Your task to perform on an android device: Open CNN.com Image 0: 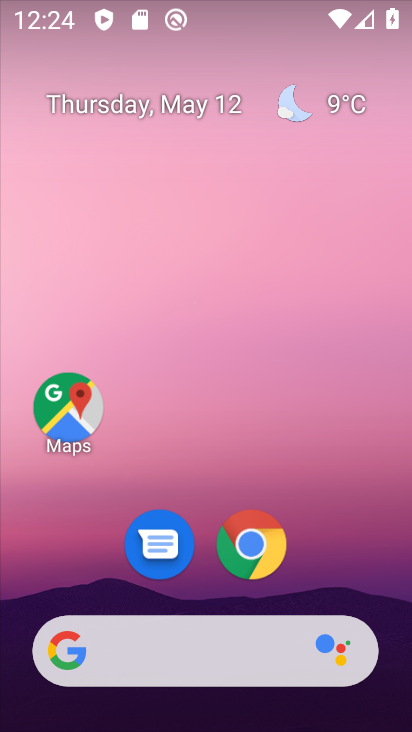
Step 0: click (255, 545)
Your task to perform on an android device: Open CNN.com Image 1: 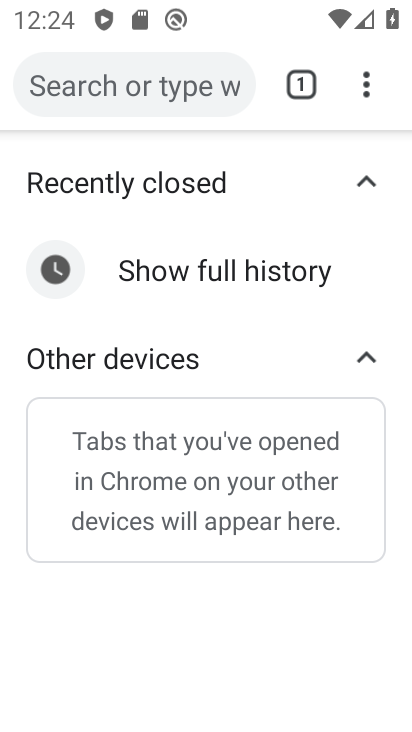
Step 1: click (366, 93)
Your task to perform on an android device: Open CNN.com Image 2: 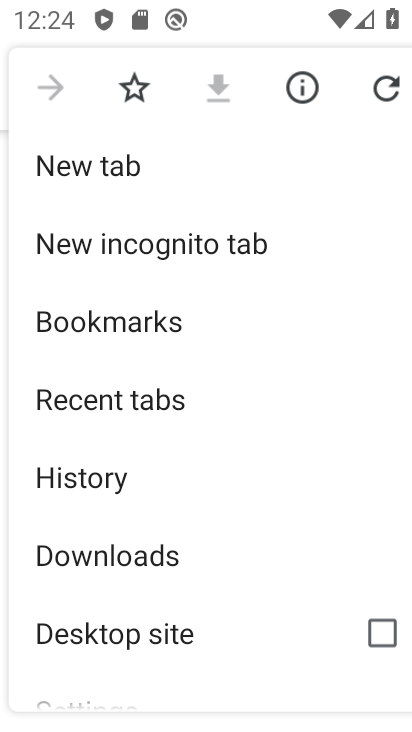
Step 2: click (70, 164)
Your task to perform on an android device: Open CNN.com Image 3: 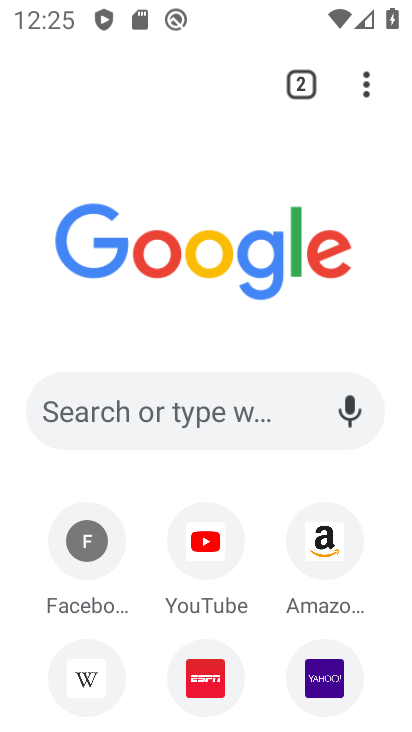
Step 3: click (192, 411)
Your task to perform on an android device: Open CNN.com Image 4: 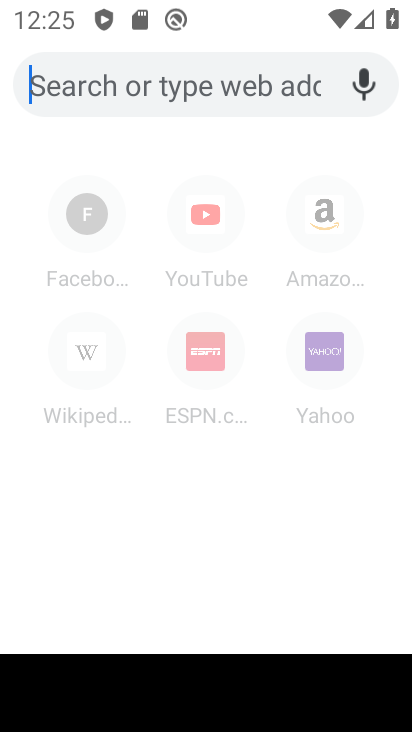
Step 4: type "CNN.com"
Your task to perform on an android device: Open CNN.com Image 5: 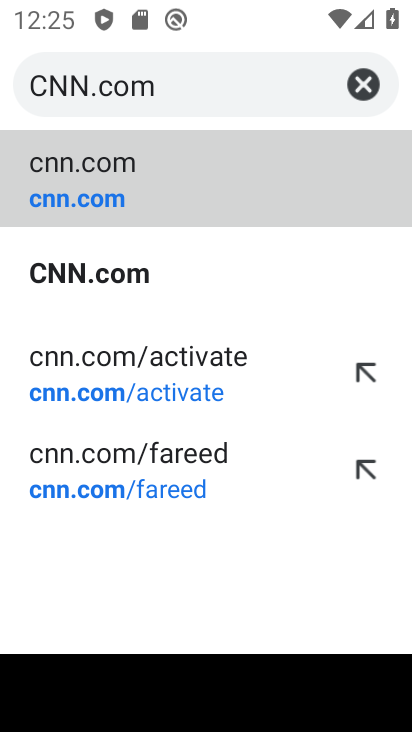
Step 5: click (63, 179)
Your task to perform on an android device: Open CNN.com Image 6: 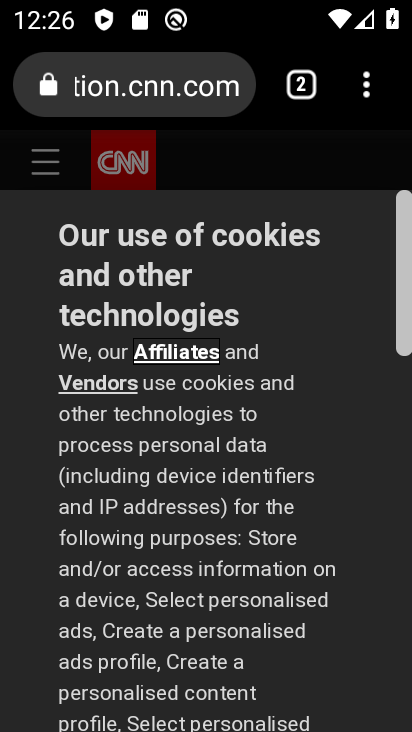
Step 6: task complete